Your task to perform on an android device: delete location history Image 0: 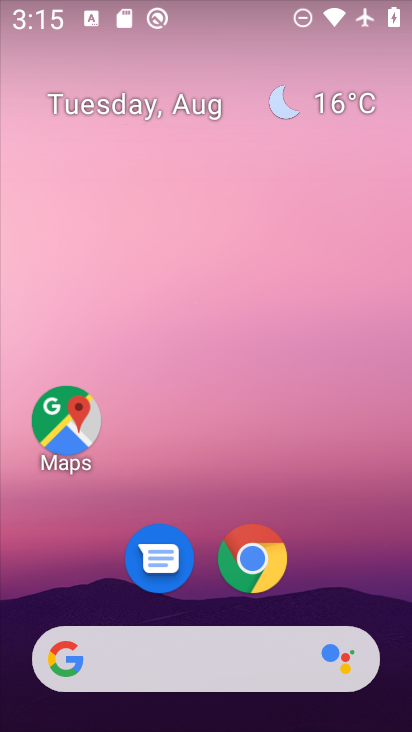
Step 0: drag from (227, 487) to (241, 178)
Your task to perform on an android device: delete location history Image 1: 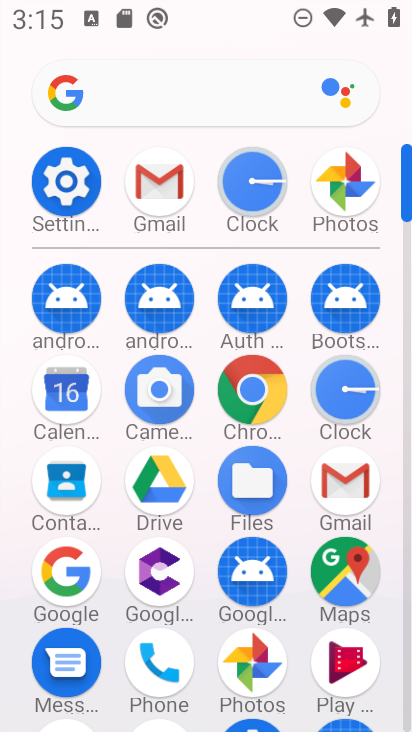
Step 1: click (350, 590)
Your task to perform on an android device: delete location history Image 2: 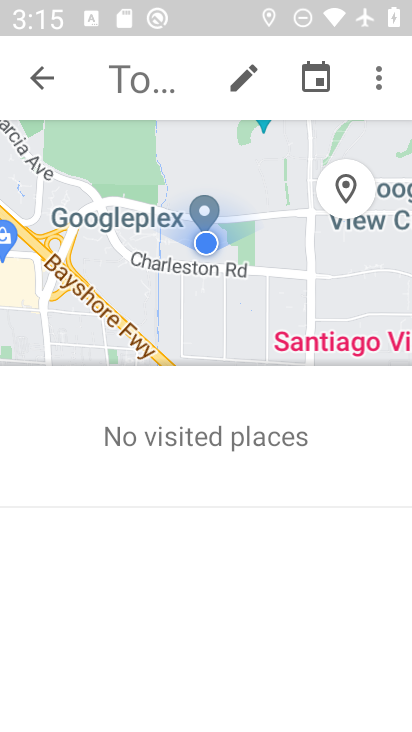
Step 2: click (40, 83)
Your task to perform on an android device: delete location history Image 3: 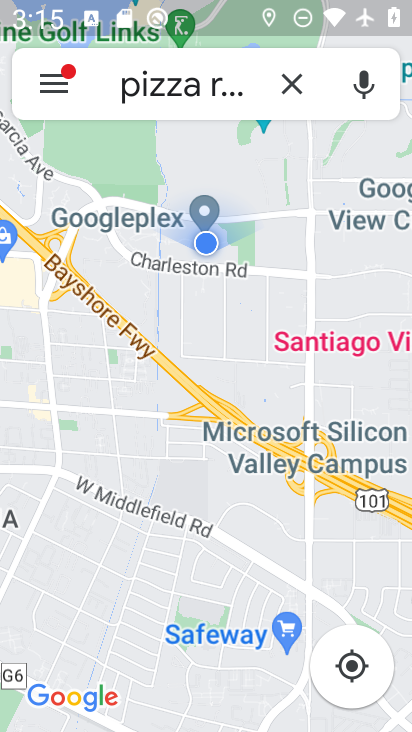
Step 3: click (40, 83)
Your task to perform on an android device: delete location history Image 4: 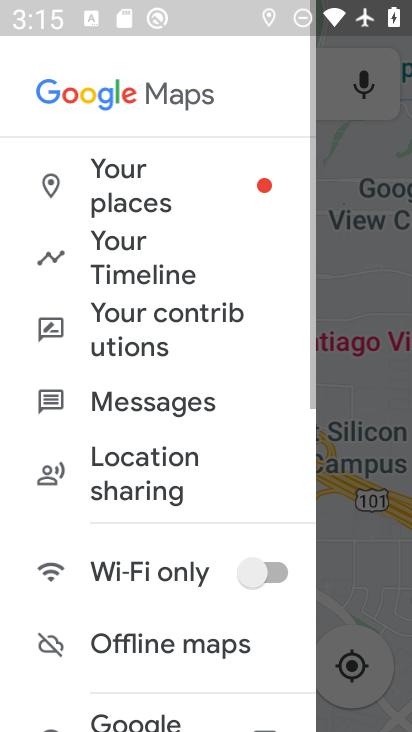
Step 4: click (162, 270)
Your task to perform on an android device: delete location history Image 5: 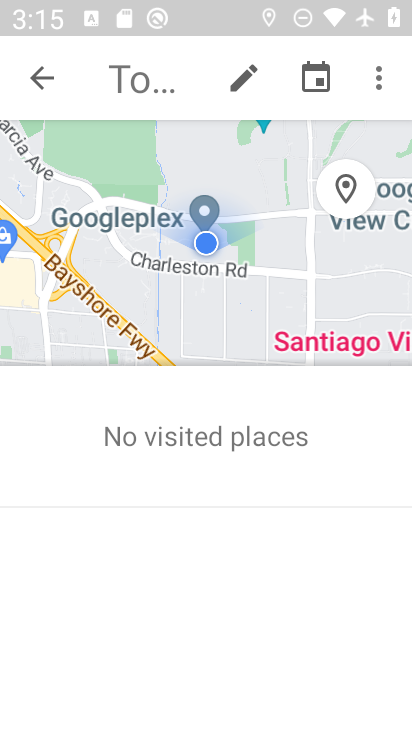
Step 5: click (379, 81)
Your task to perform on an android device: delete location history Image 6: 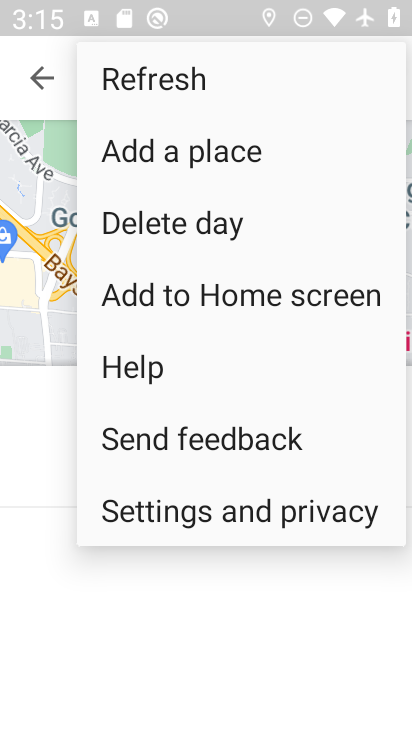
Step 6: click (245, 509)
Your task to perform on an android device: delete location history Image 7: 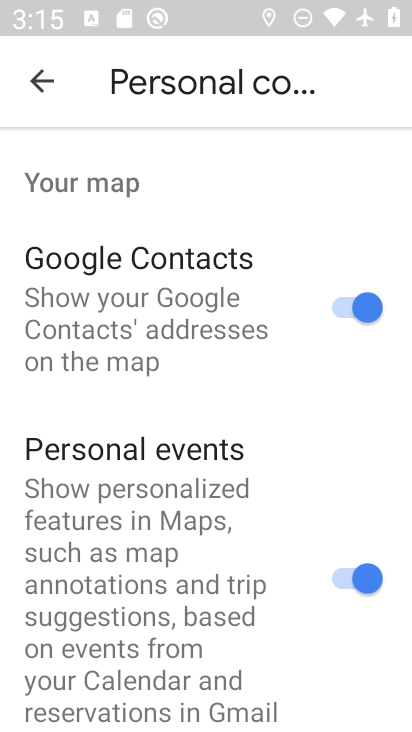
Step 7: drag from (217, 558) to (203, 222)
Your task to perform on an android device: delete location history Image 8: 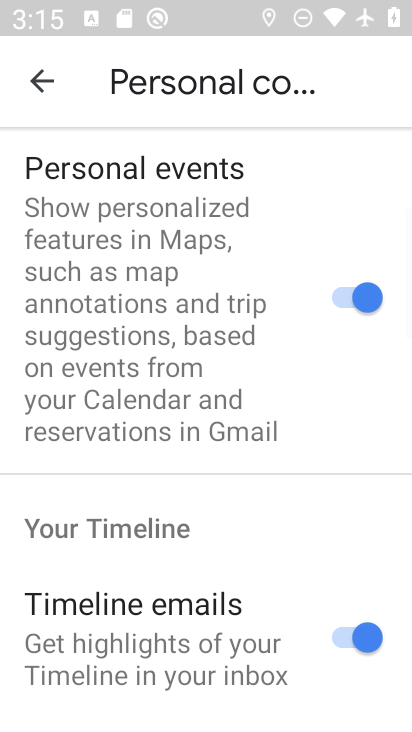
Step 8: drag from (241, 538) to (270, 244)
Your task to perform on an android device: delete location history Image 9: 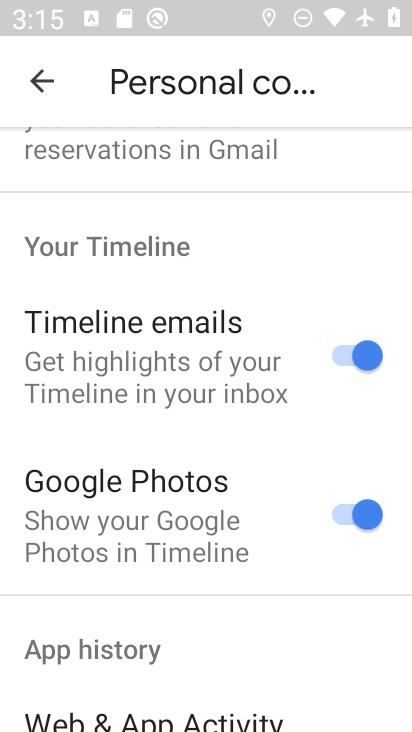
Step 9: drag from (265, 636) to (260, 279)
Your task to perform on an android device: delete location history Image 10: 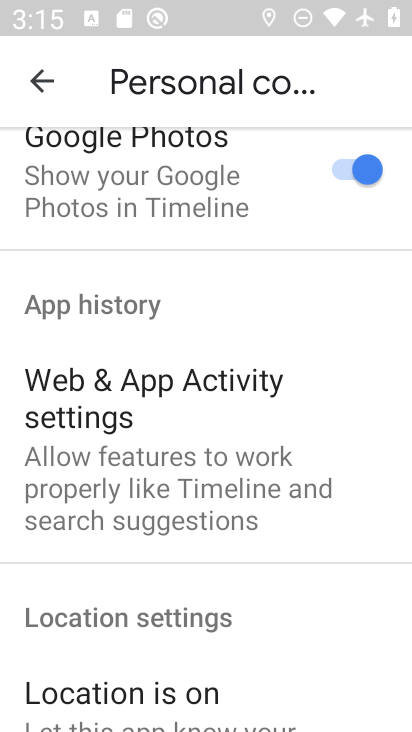
Step 10: drag from (247, 600) to (249, 252)
Your task to perform on an android device: delete location history Image 11: 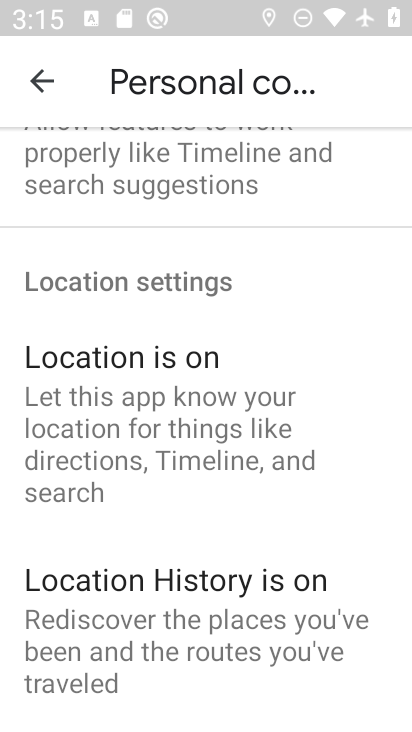
Step 11: drag from (238, 596) to (242, 263)
Your task to perform on an android device: delete location history Image 12: 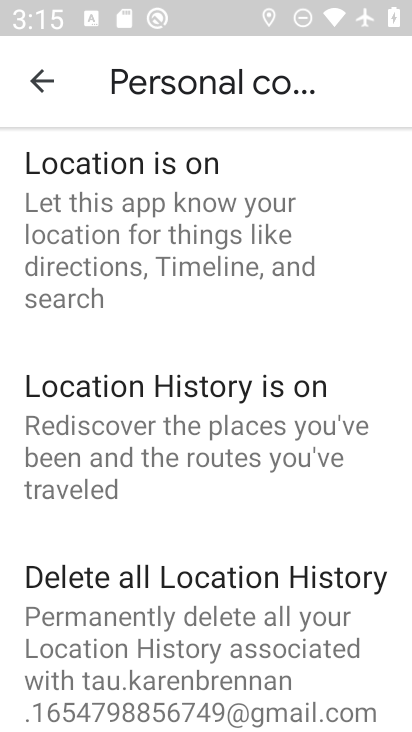
Step 12: click (218, 630)
Your task to perform on an android device: delete location history Image 13: 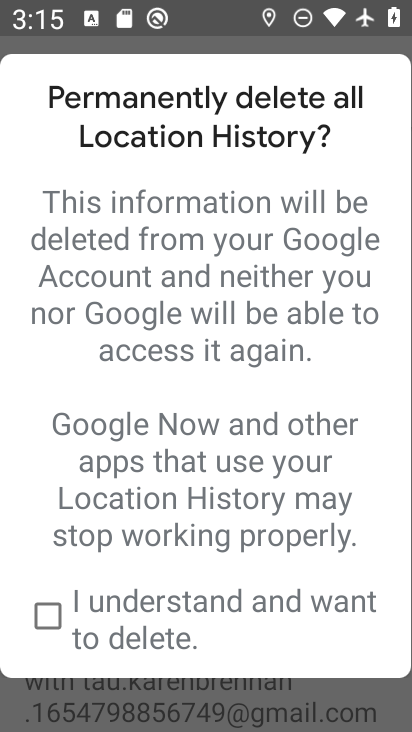
Step 13: click (46, 611)
Your task to perform on an android device: delete location history Image 14: 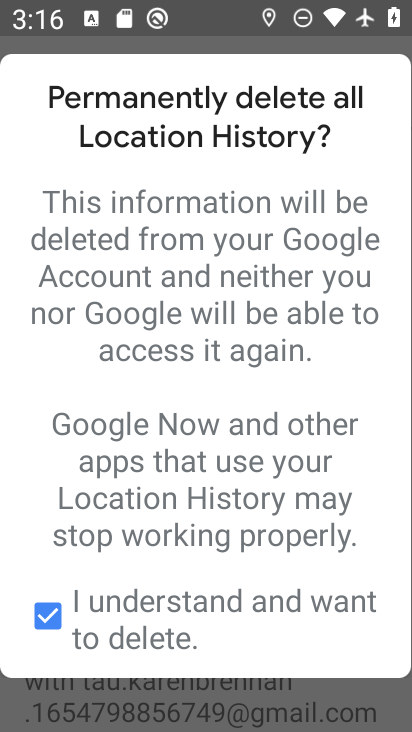
Step 14: task complete